Your task to perform on an android device: clear all cookies in the chrome app Image 0: 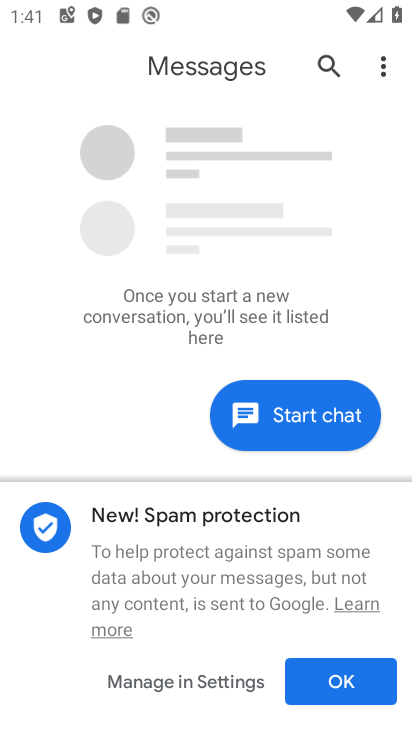
Step 0: press home button
Your task to perform on an android device: clear all cookies in the chrome app Image 1: 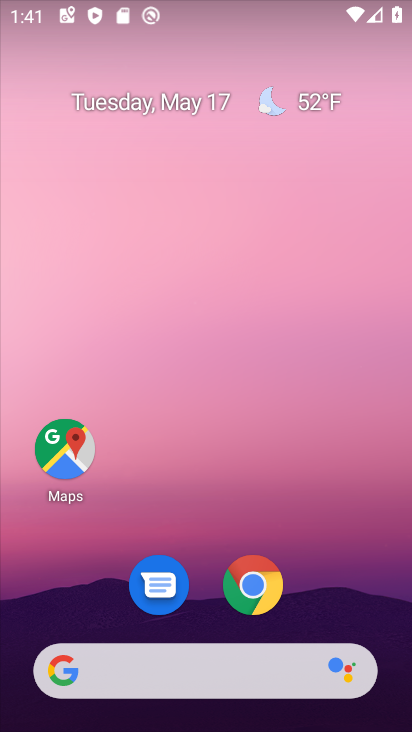
Step 1: click (256, 580)
Your task to perform on an android device: clear all cookies in the chrome app Image 2: 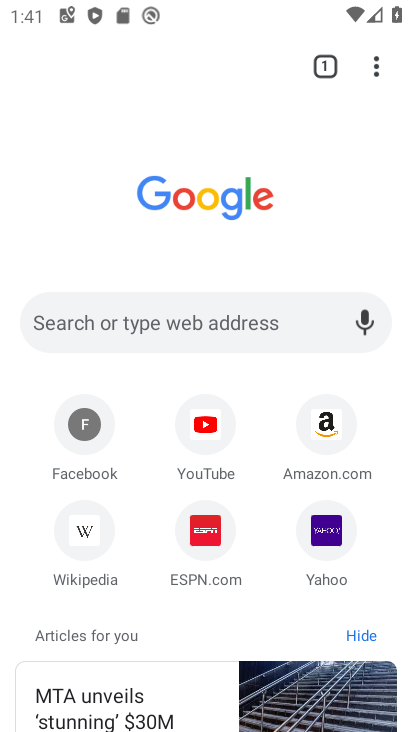
Step 2: click (376, 65)
Your task to perform on an android device: clear all cookies in the chrome app Image 3: 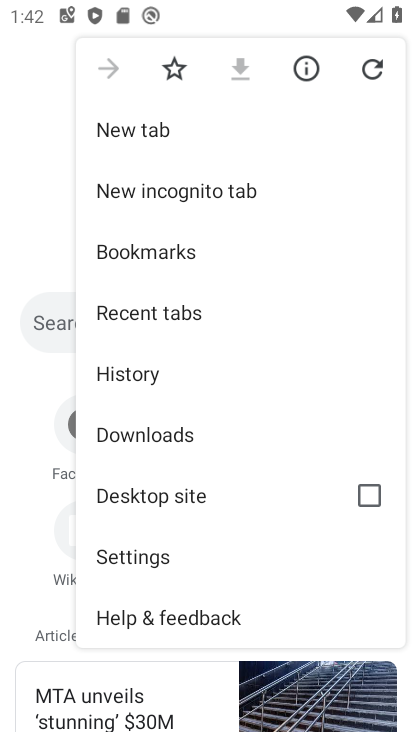
Step 3: click (204, 545)
Your task to perform on an android device: clear all cookies in the chrome app Image 4: 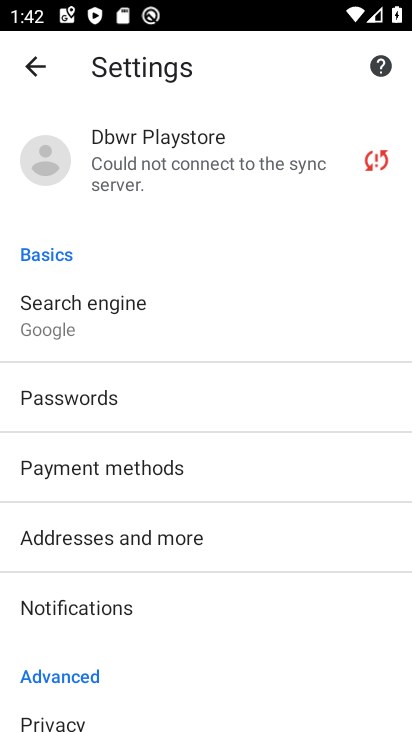
Step 4: drag from (216, 627) to (228, 522)
Your task to perform on an android device: clear all cookies in the chrome app Image 5: 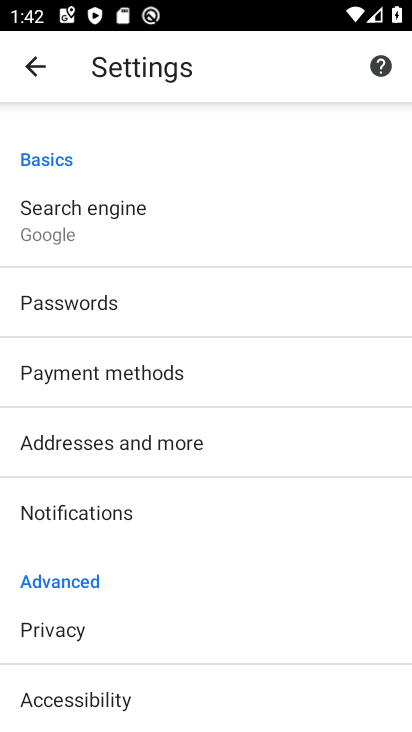
Step 5: click (180, 630)
Your task to perform on an android device: clear all cookies in the chrome app Image 6: 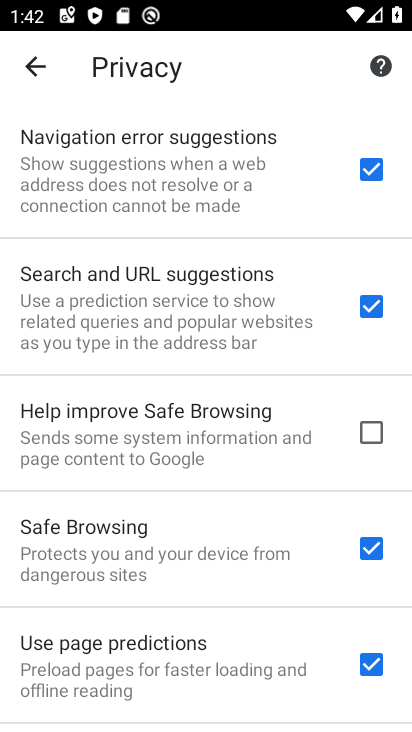
Step 6: drag from (222, 588) to (275, 165)
Your task to perform on an android device: clear all cookies in the chrome app Image 7: 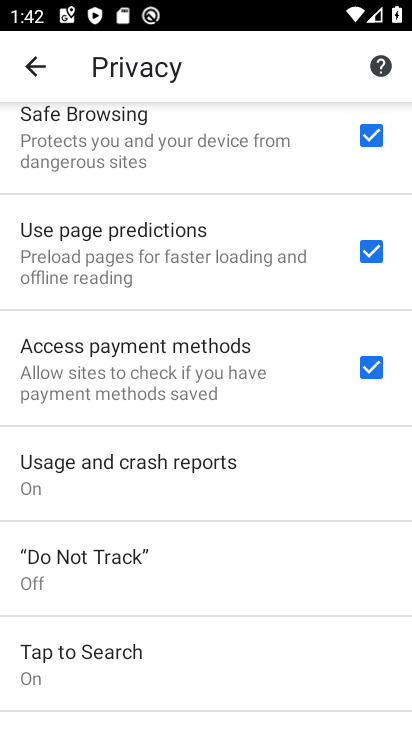
Step 7: drag from (208, 631) to (225, 384)
Your task to perform on an android device: clear all cookies in the chrome app Image 8: 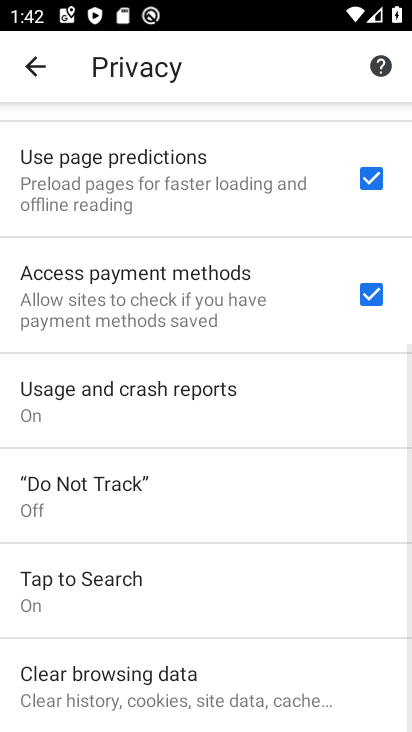
Step 8: click (184, 682)
Your task to perform on an android device: clear all cookies in the chrome app Image 9: 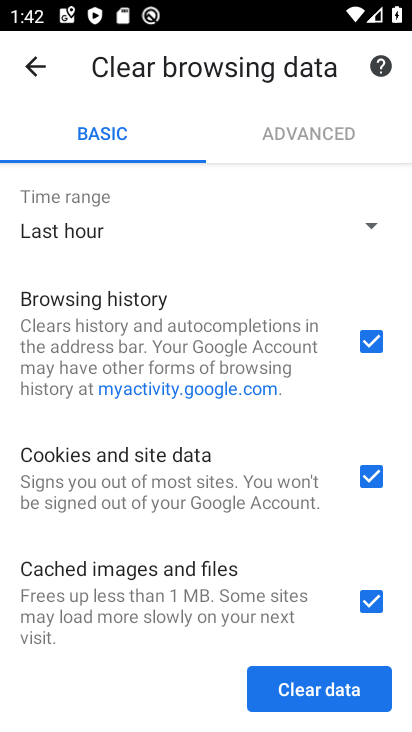
Step 9: click (365, 591)
Your task to perform on an android device: clear all cookies in the chrome app Image 10: 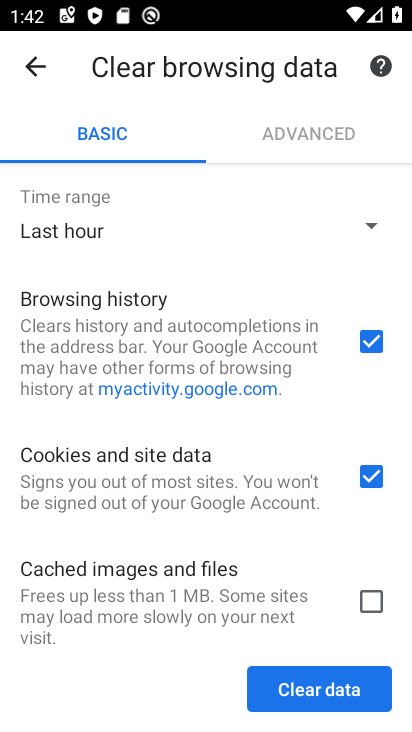
Step 10: click (365, 337)
Your task to perform on an android device: clear all cookies in the chrome app Image 11: 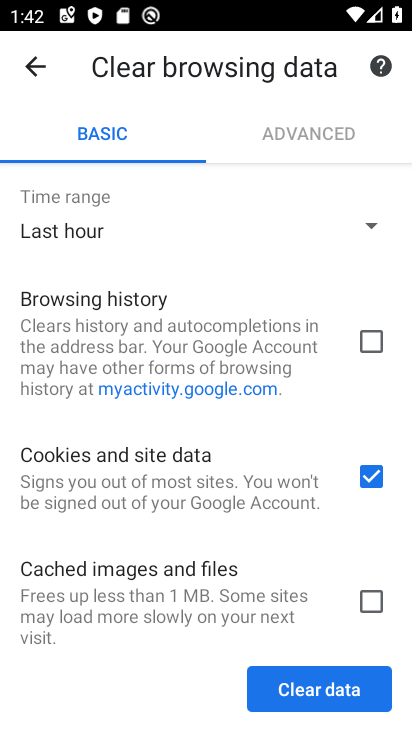
Step 11: click (345, 688)
Your task to perform on an android device: clear all cookies in the chrome app Image 12: 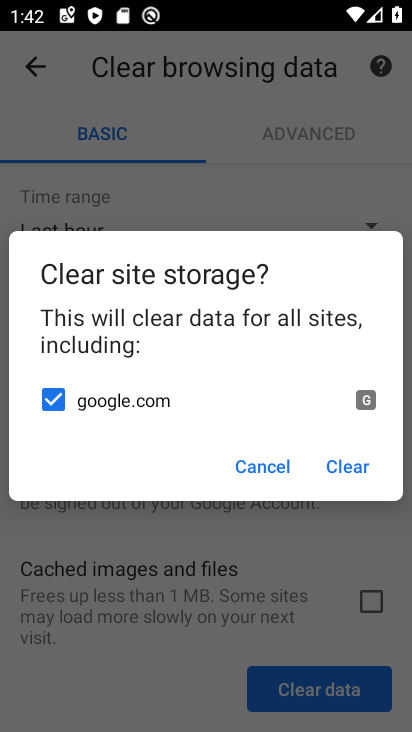
Step 12: click (359, 465)
Your task to perform on an android device: clear all cookies in the chrome app Image 13: 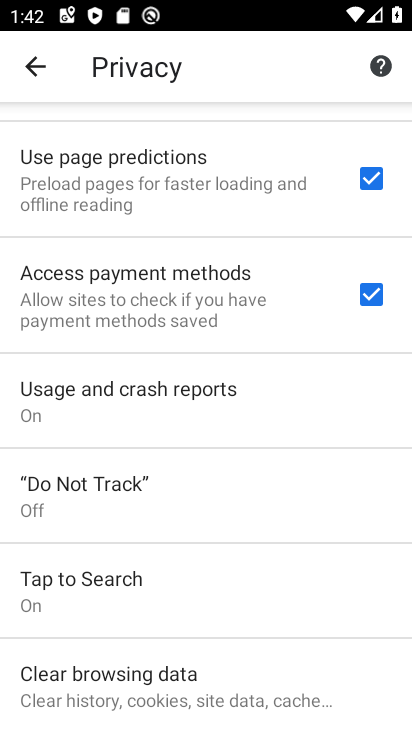
Step 13: task complete